Your task to perform on an android device: open device folders in google photos Image 0: 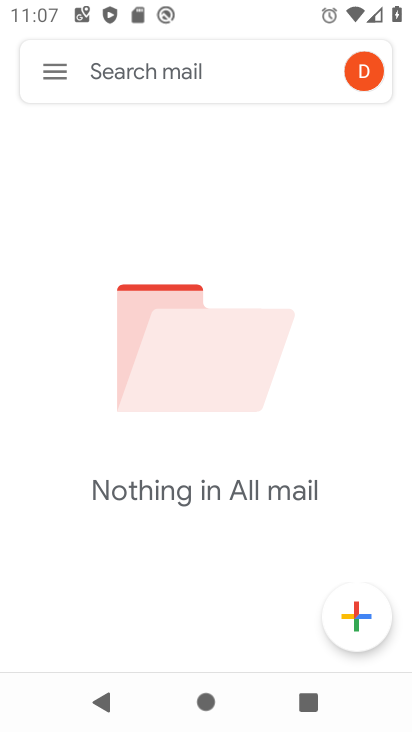
Step 0: press home button
Your task to perform on an android device: open device folders in google photos Image 1: 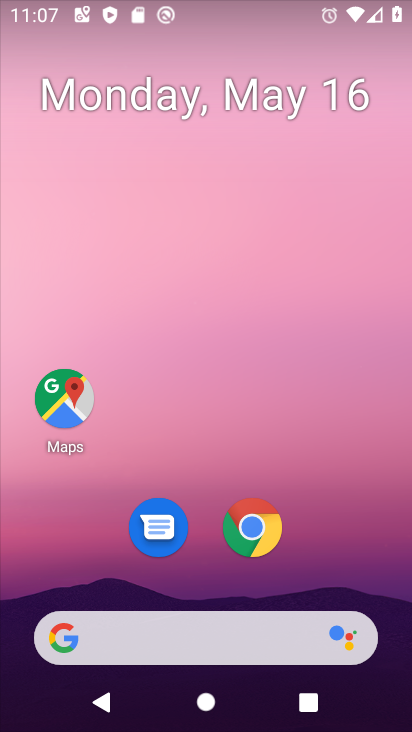
Step 1: drag from (311, 574) to (315, 16)
Your task to perform on an android device: open device folders in google photos Image 2: 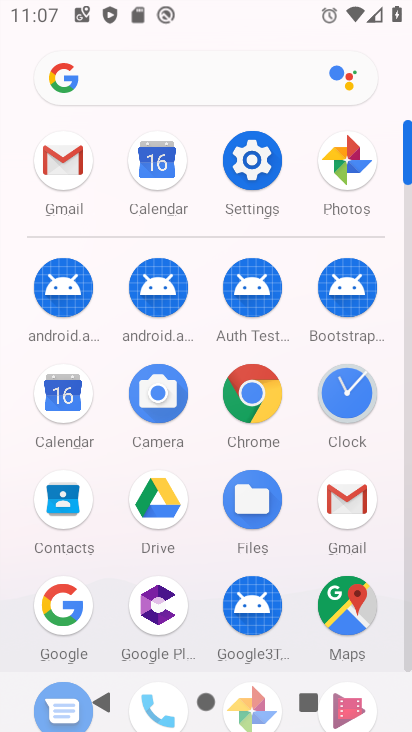
Step 2: click (344, 175)
Your task to perform on an android device: open device folders in google photos Image 3: 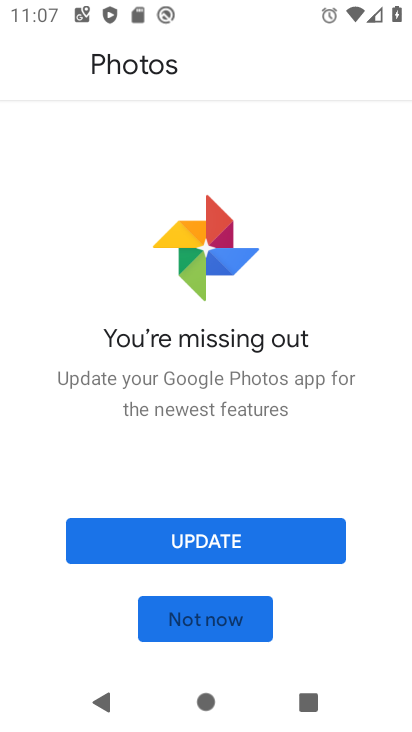
Step 3: click (206, 635)
Your task to perform on an android device: open device folders in google photos Image 4: 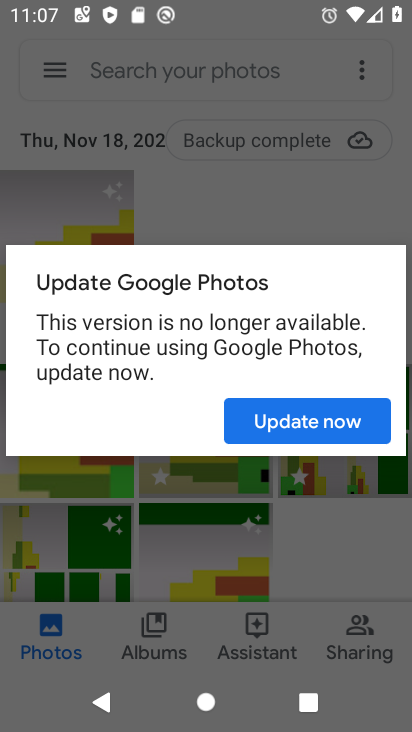
Step 4: click (287, 413)
Your task to perform on an android device: open device folders in google photos Image 5: 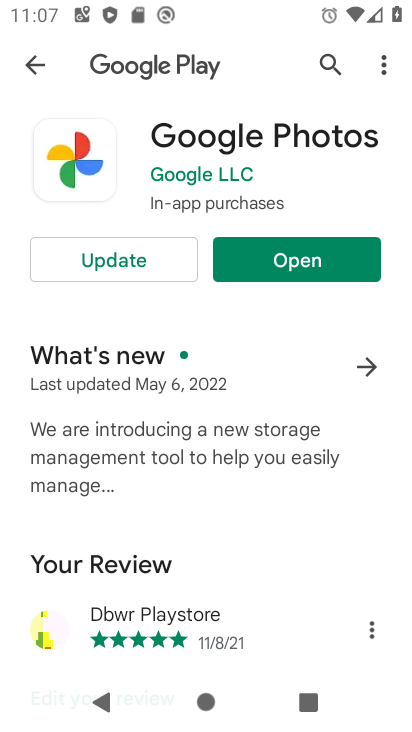
Step 5: click (273, 256)
Your task to perform on an android device: open device folders in google photos Image 6: 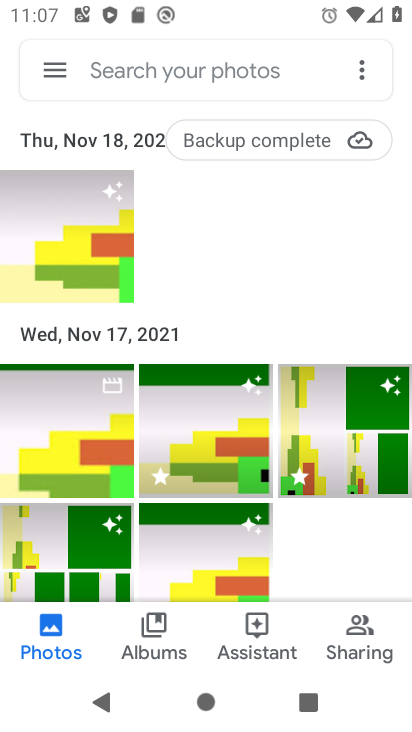
Step 6: click (56, 68)
Your task to perform on an android device: open device folders in google photos Image 7: 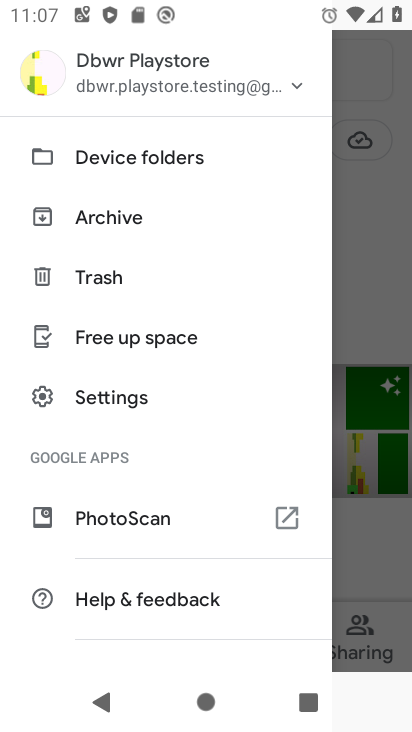
Step 7: click (134, 156)
Your task to perform on an android device: open device folders in google photos Image 8: 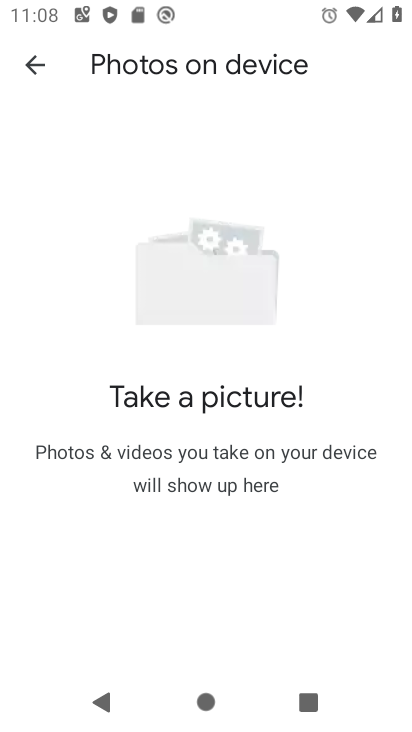
Step 8: task complete